Your task to perform on an android device: Show me popular games on the Play Store Image 0: 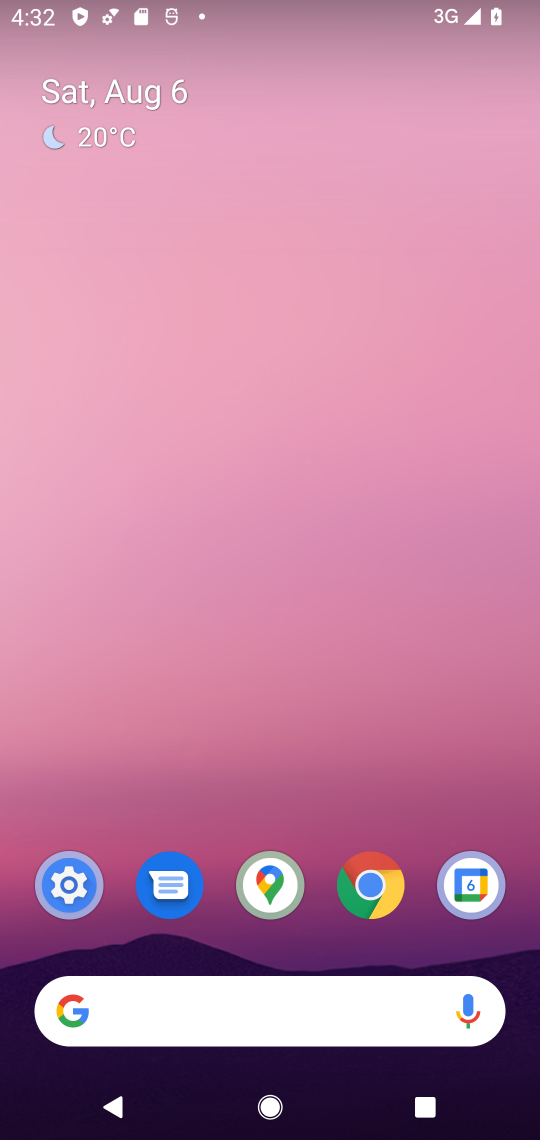
Step 0: drag from (413, 943) to (349, 3)
Your task to perform on an android device: Show me popular games on the Play Store Image 1: 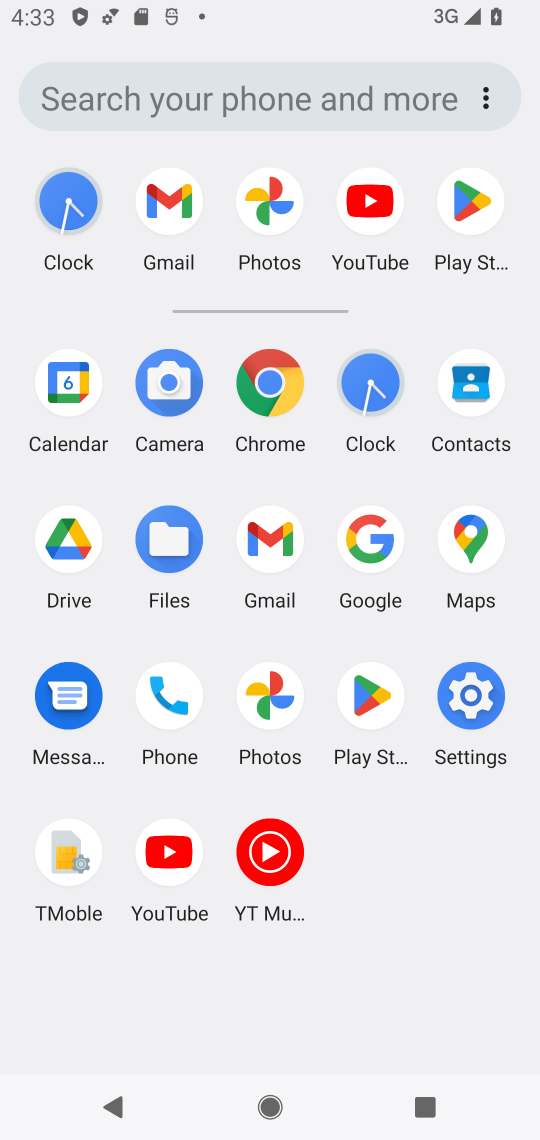
Step 1: click (365, 694)
Your task to perform on an android device: Show me popular games on the Play Store Image 2: 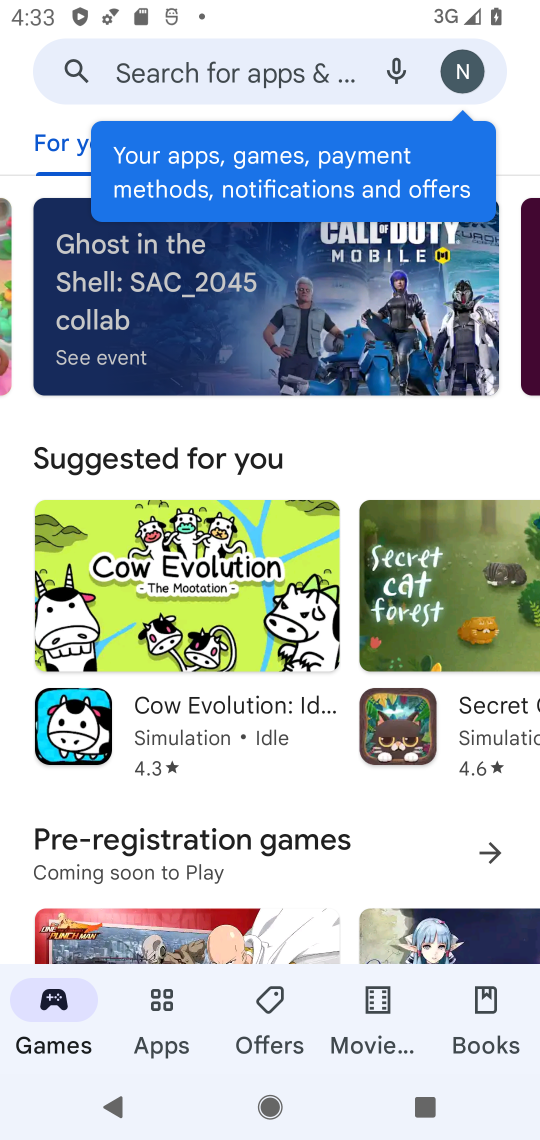
Step 2: task complete